Your task to perform on an android device: Open Android settings Image 0: 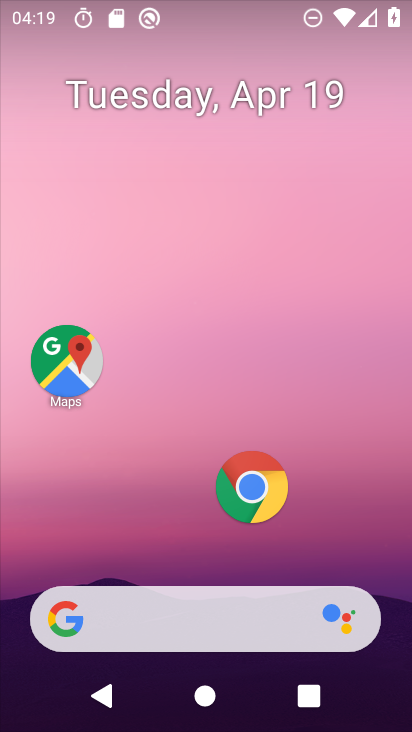
Step 0: drag from (224, 489) to (296, 52)
Your task to perform on an android device: Open Android settings Image 1: 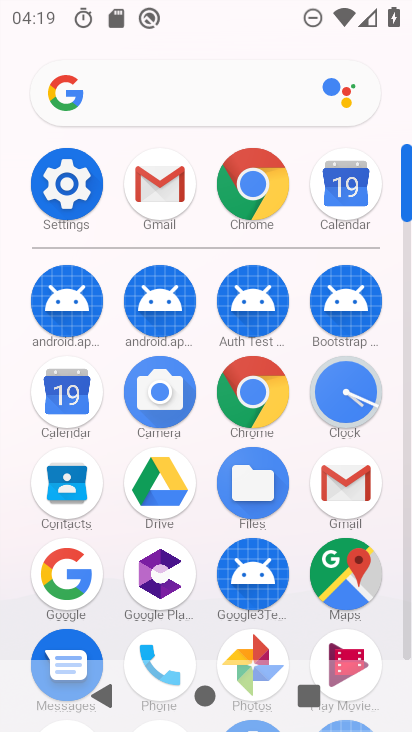
Step 1: click (68, 169)
Your task to perform on an android device: Open Android settings Image 2: 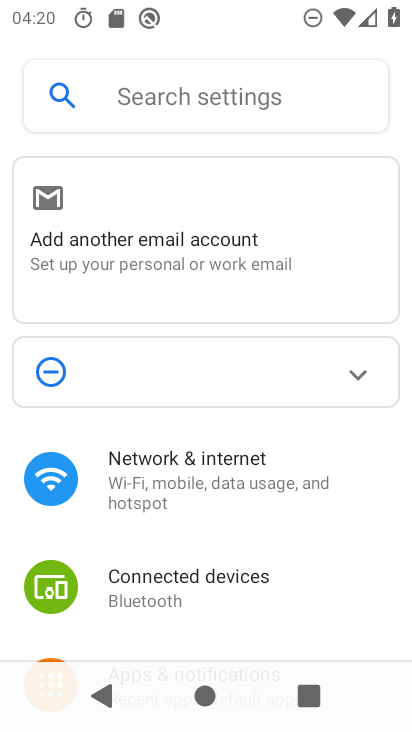
Step 2: drag from (194, 563) to (273, 51)
Your task to perform on an android device: Open Android settings Image 3: 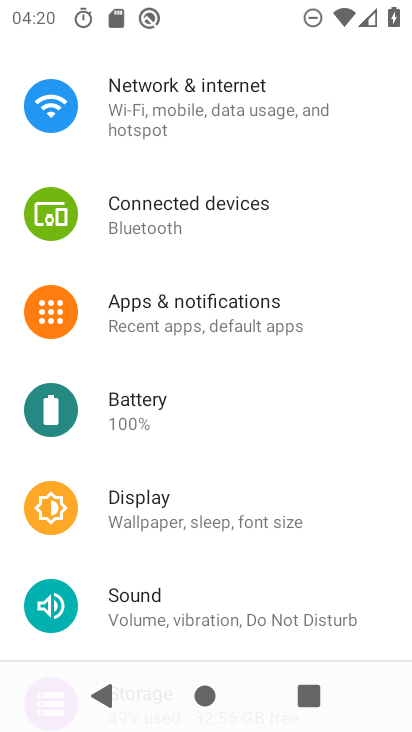
Step 3: drag from (191, 432) to (277, 39)
Your task to perform on an android device: Open Android settings Image 4: 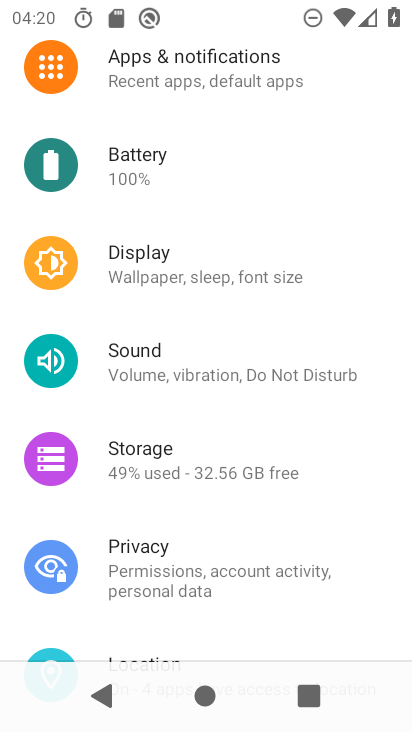
Step 4: drag from (192, 515) to (271, 26)
Your task to perform on an android device: Open Android settings Image 5: 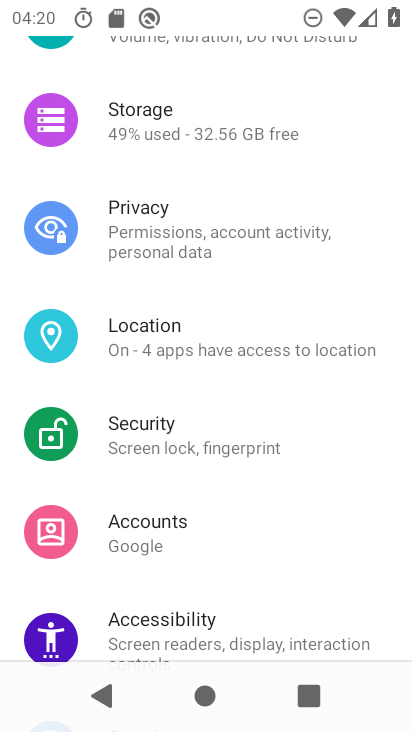
Step 5: drag from (204, 553) to (261, 75)
Your task to perform on an android device: Open Android settings Image 6: 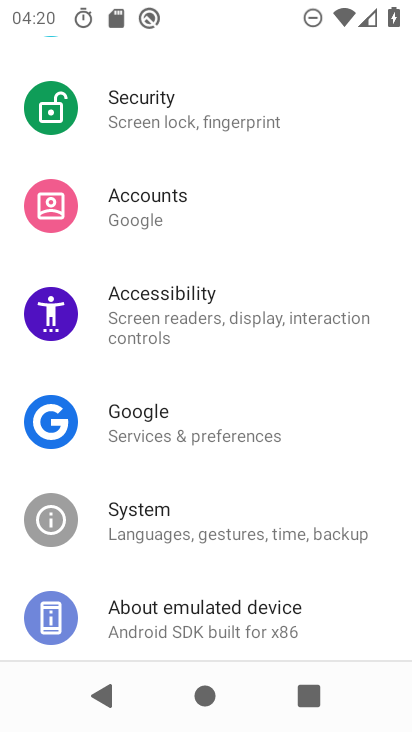
Step 6: drag from (208, 529) to (257, 54)
Your task to perform on an android device: Open Android settings Image 7: 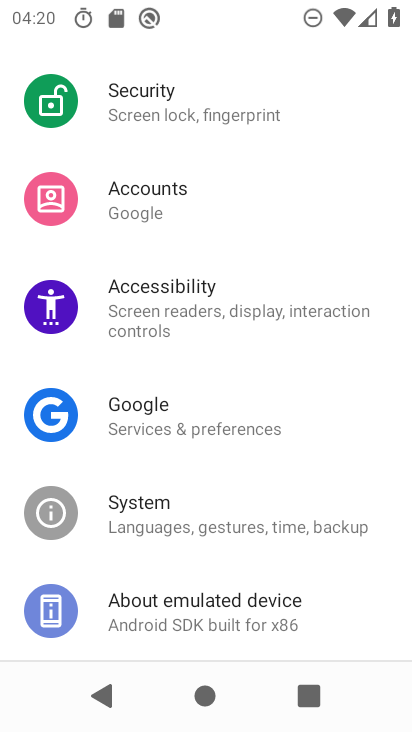
Step 7: click (192, 618)
Your task to perform on an android device: Open Android settings Image 8: 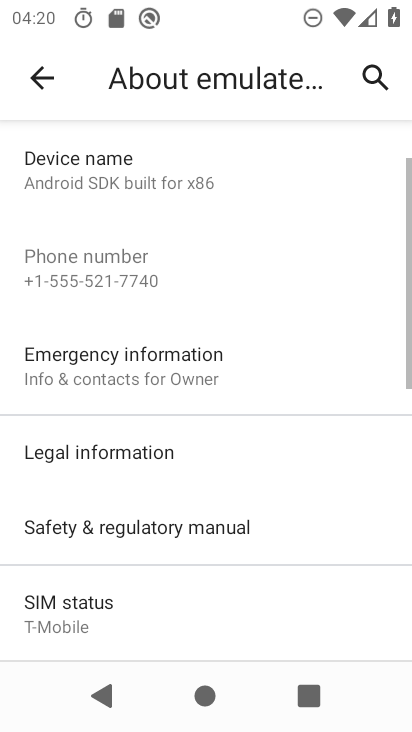
Step 8: drag from (154, 593) to (232, 120)
Your task to perform on an android device: Open Android settings Image 9: 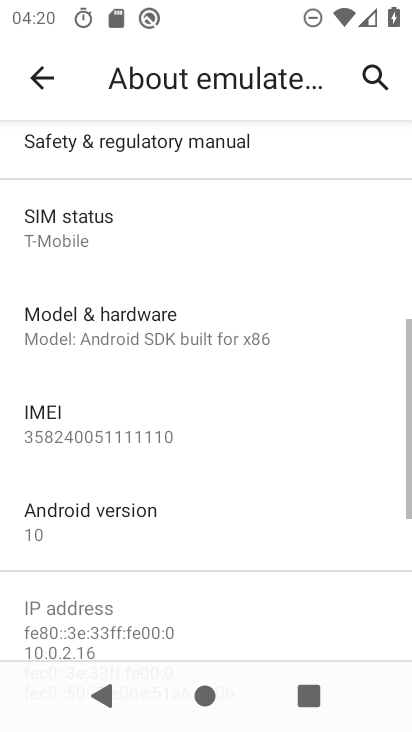
Step 9: drag from (192, 536) to (269, 218)
Your task to perform on an android device: Open Android settings Image 10: 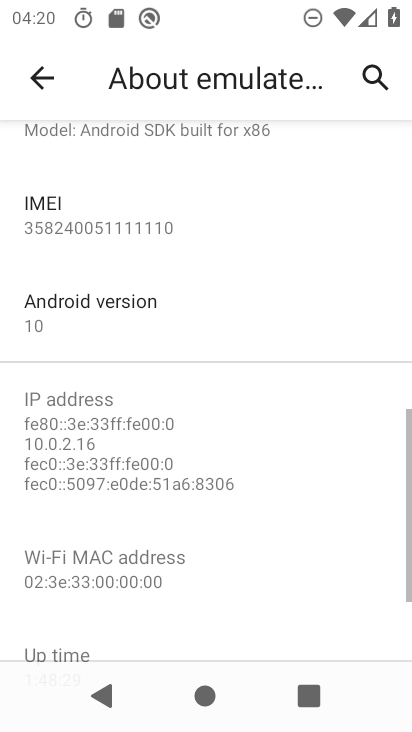
Step 10: click (46, 312)
Your task to perform on an android device: Open Android settings Image 11: 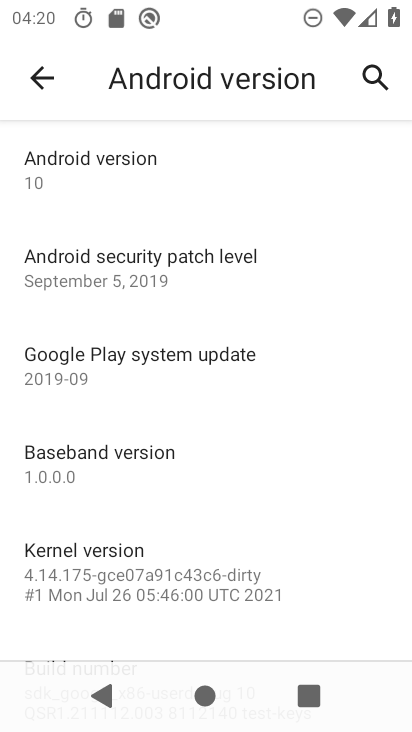
Step 11: click (95, 184)
Your task to perform on an android device: Open Android settings Image 12: 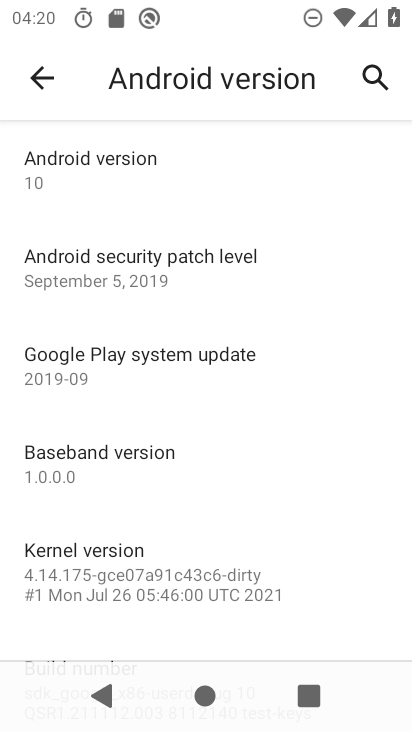
Step 12: task complete